Your task to perform on an android device: Go to CNN.com Image 0: 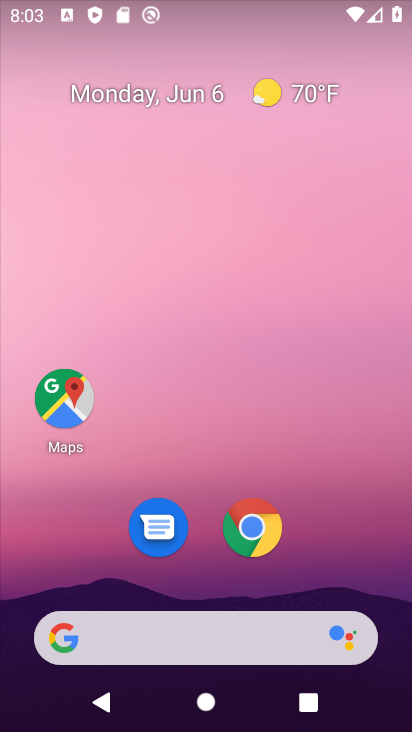
Step 0: click (252, 536)
Your task to perform on an android device: Go to CNN.com Image 1: 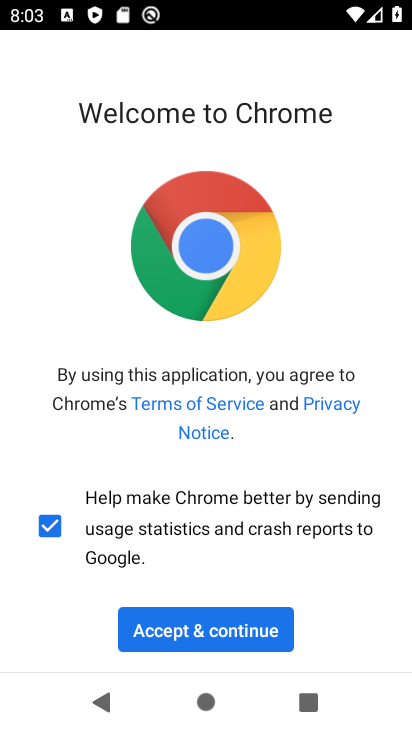
Step 1: click (264, 634)
Your task to perform on an android device: Go to CNN.com Image 2: 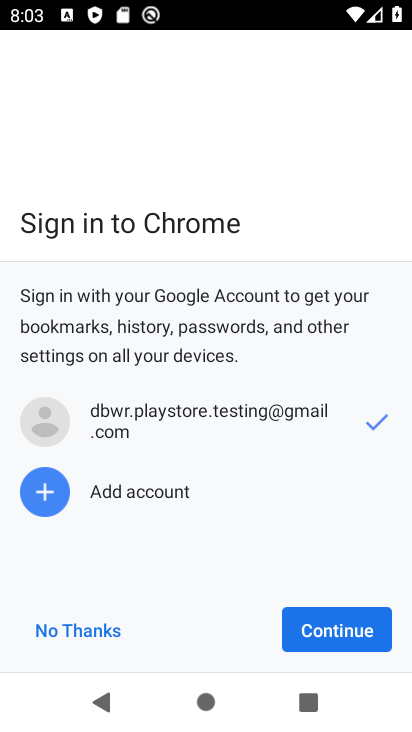
Step 2: click (340, 632)
Your task to perform on an android device: Go to CNN.com Image 3: 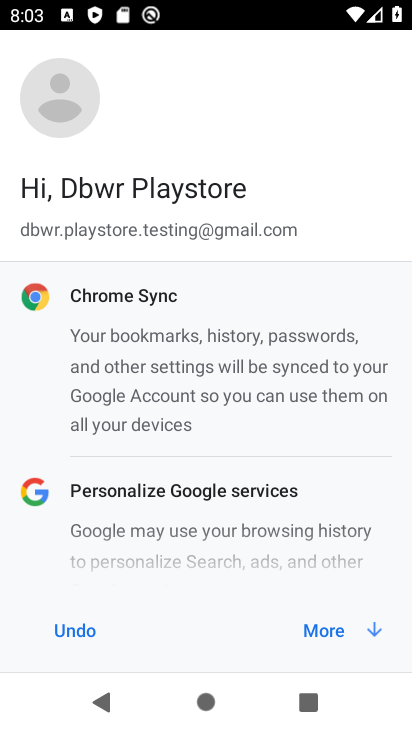
Step 3: click (317, 629)
Your task to perform on an android device: Go to CNN.com Image 4: 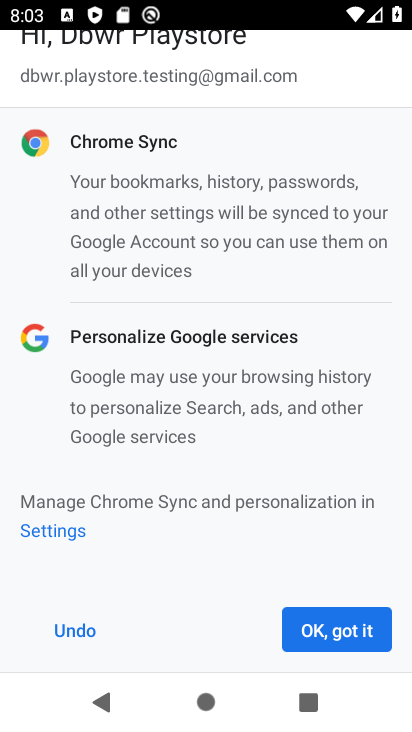
Step 4: click (325, 631)
Your task to perform on an android device: Go to CNN.com Image 5: 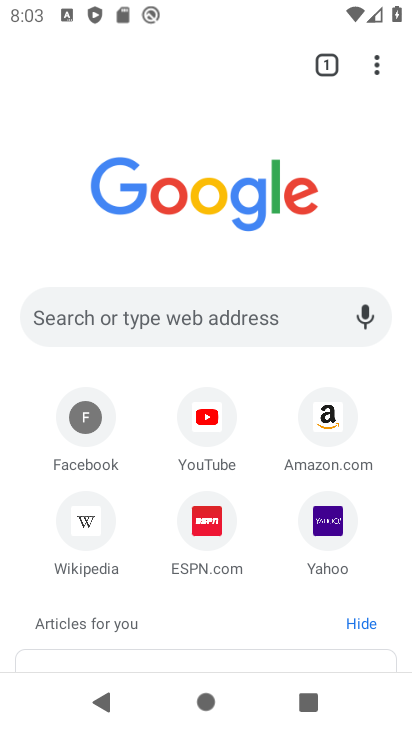
Step 5: click (222, 311)
Your task to perform on an android device: Go to CNN.com Image 6: 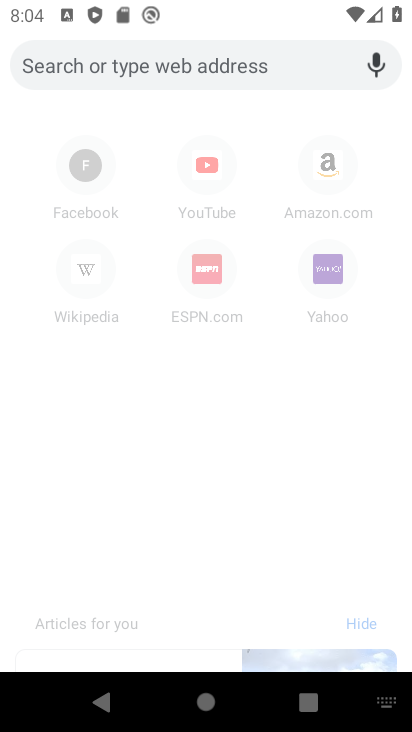
Step 6: type "cnn"
Your task to perform on an android device: Go to CNN.com Image 7: 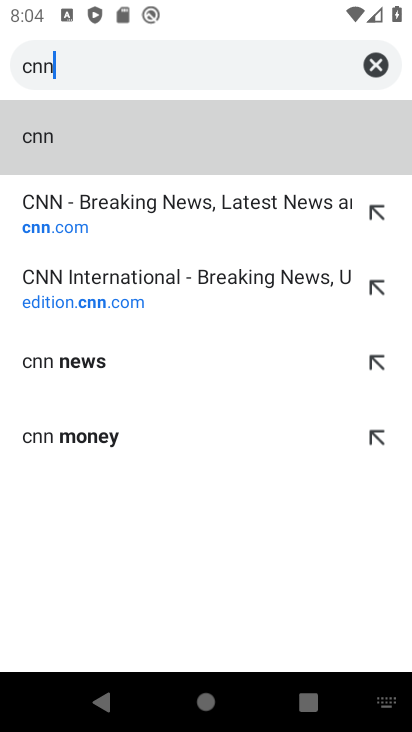
Step 7: click (191, 212)
Your task to perform on an android device: Go to CNN.com Image 8: 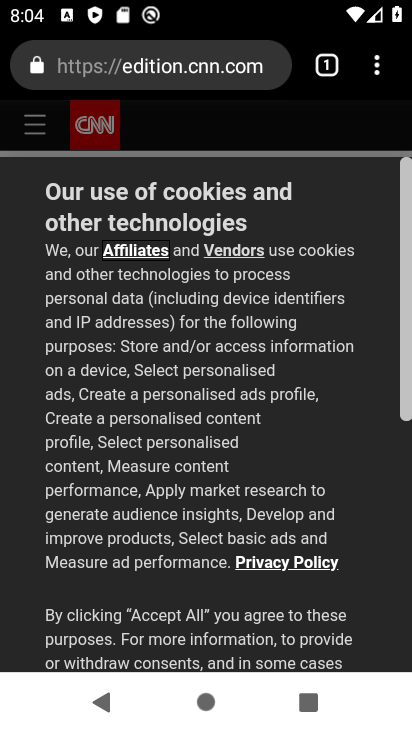
Step 8: task complete